Your task to perform on an android device: add a contact Image 0: 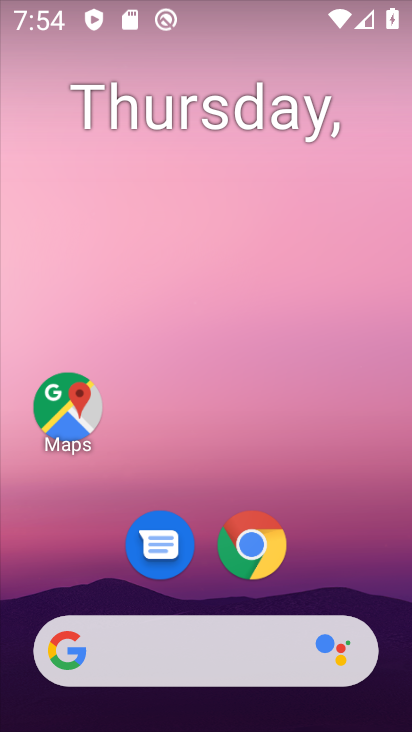
Step 0: drag from (270, 543) to (298, 117)
Your task to perform on an android device: add a contact Image 1: 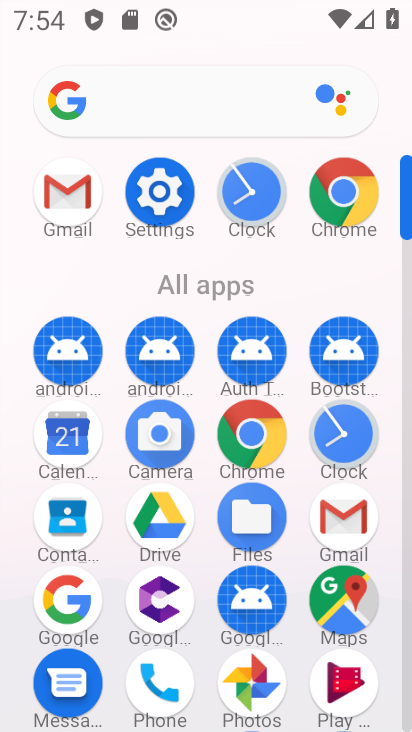
Step 1: click (162, 668)
Your task to perform on an android device: add a contact Image 2: 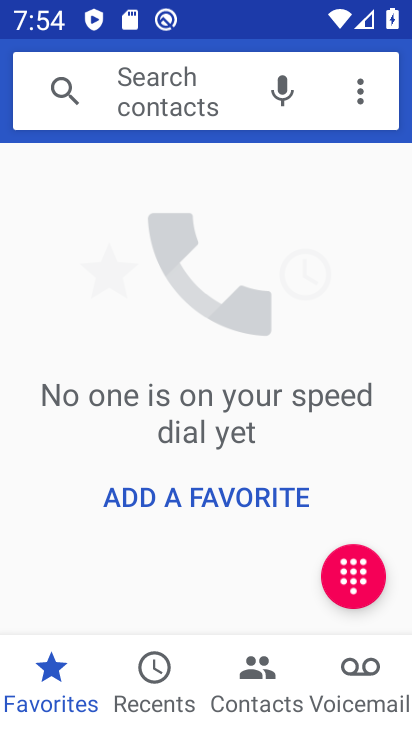
Step 2: click (210, 487)
Your task to perform on an android device: add a contact Image 3: 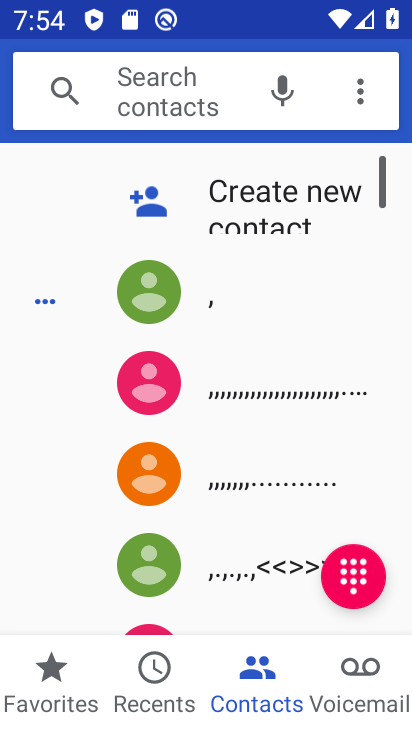
Step 3: click (233, 201)
Your task to perform on an android device: add a contact Image 4: 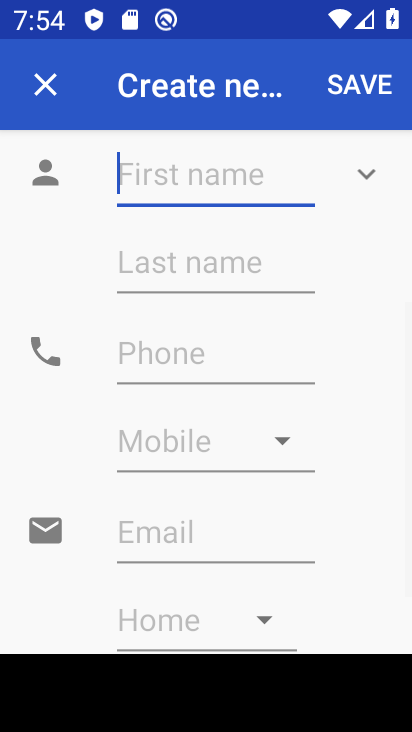
Step 4: click (166, 161)
Your task to perform on an android device: add a contact Image 5: 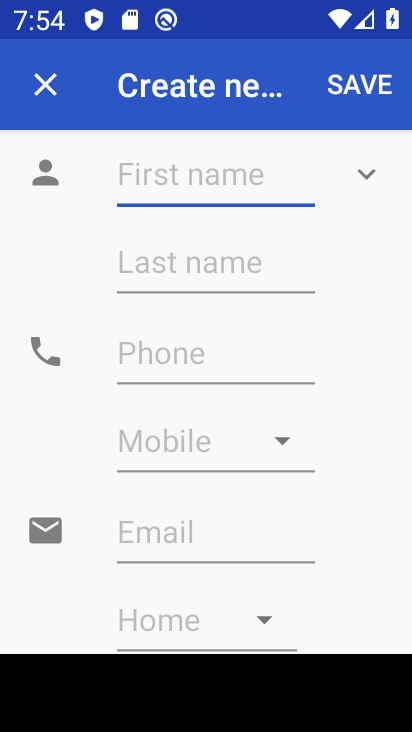
Step 5: type "ccccccccccccccc"
Your task to perform on an android device: add a contact Image 6: 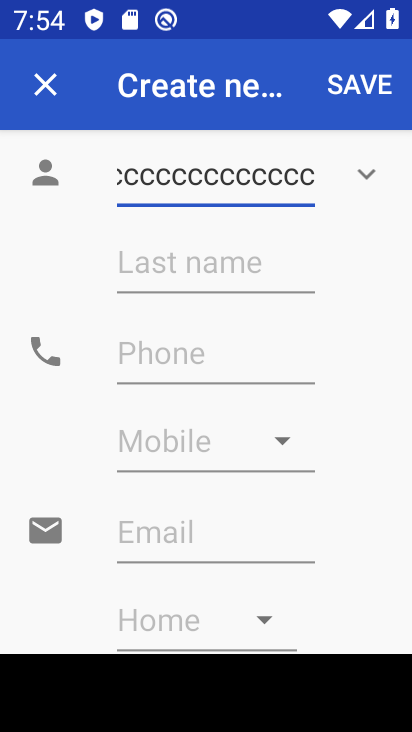
Step 6: click (174, 361)
Your task to perform on an android device: add a contact Image 7: 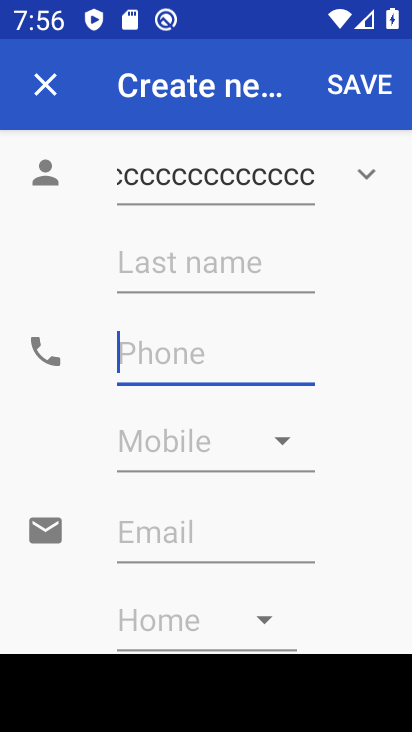
Step 7: type "4444444444444443333333333"
Your task to perform on an android device: add a contact Image 8: 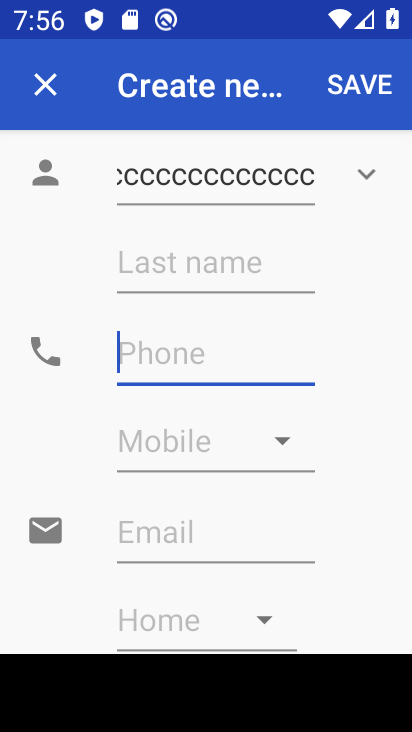
Step 8: click (365, 74)
Your task to perform on an android device: add a contact Image 9: 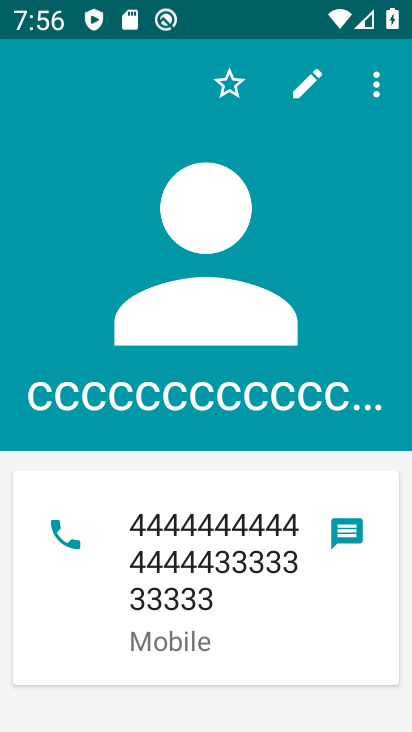
Step 9: task complete